Your task to perform on an android device: turn off notifications in google photos Image 0: 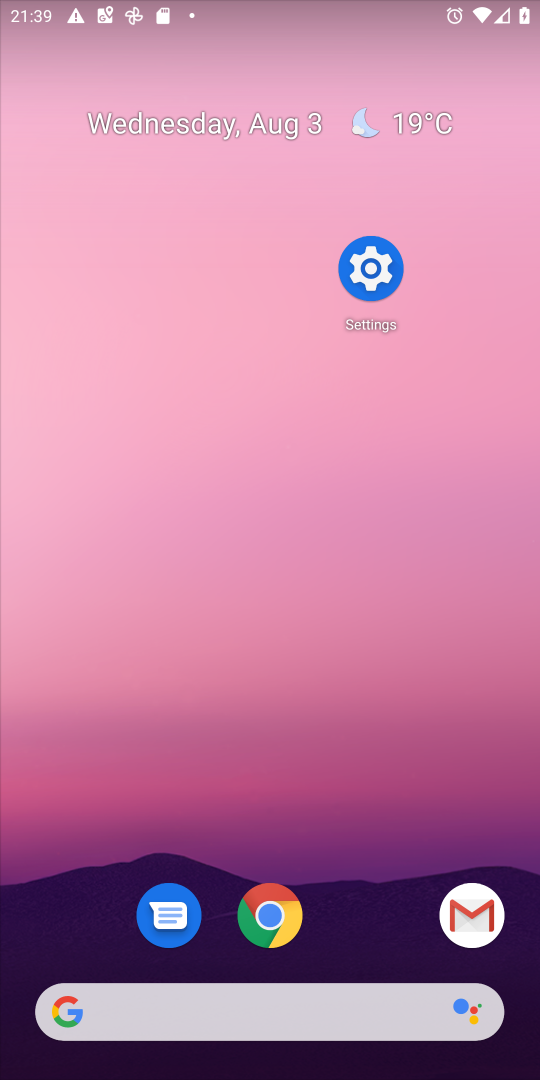
Step 0: press home button
Your task to perform on an android device: turn off notifications in google photos Image 1: 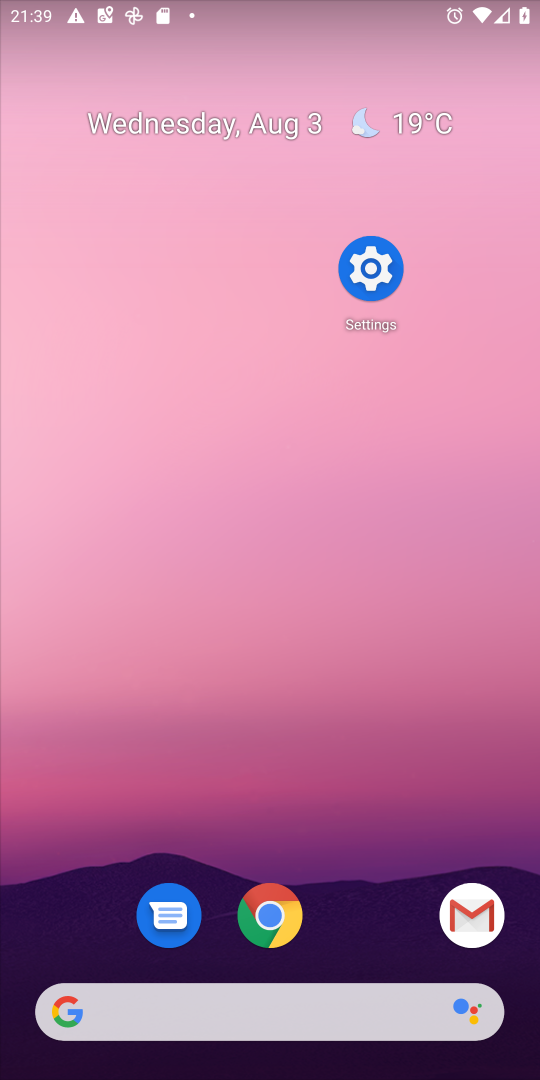
Step 1: drag from (327, 1029) to (202, 164)
Your task to perform on an android device: turn off notifications in google photos Image 2: 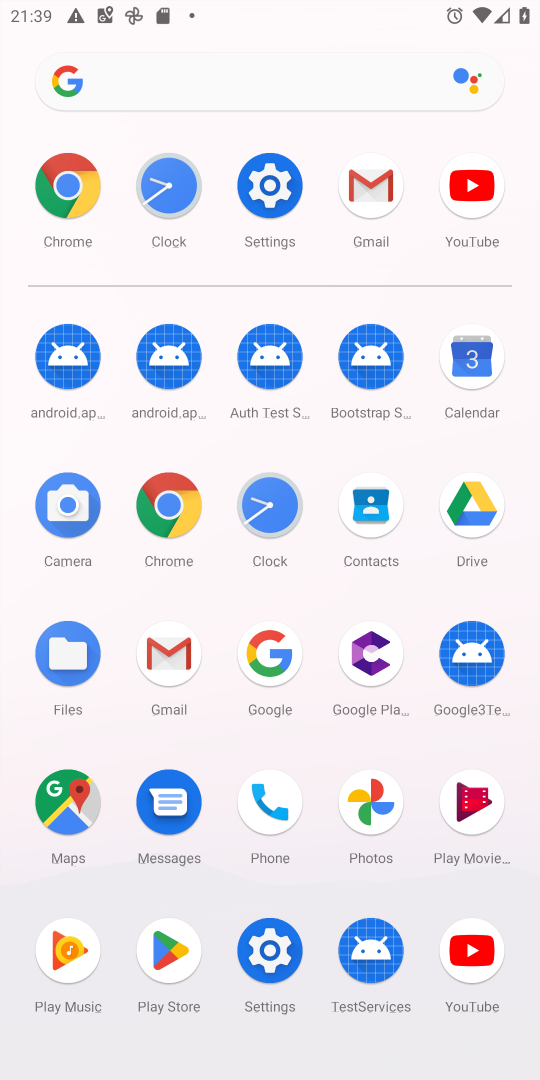
Step 2: click (372, 821)
Your task to perform on an android device: turn off notifications in google photos Image 3: 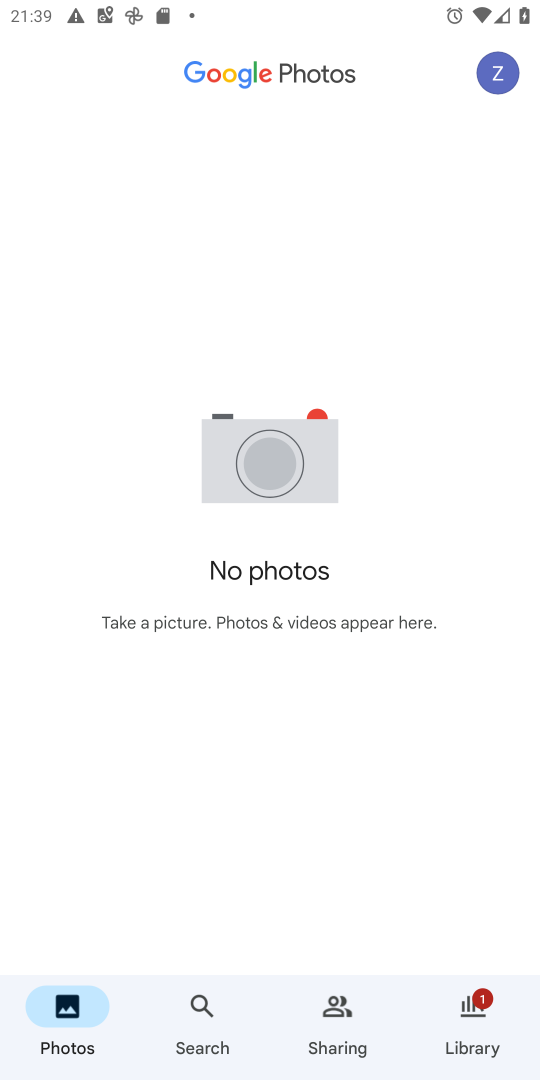
Step 3: click (199, 1003)
Your task to perform on an android device: turn off notifications in google photos Image 4: 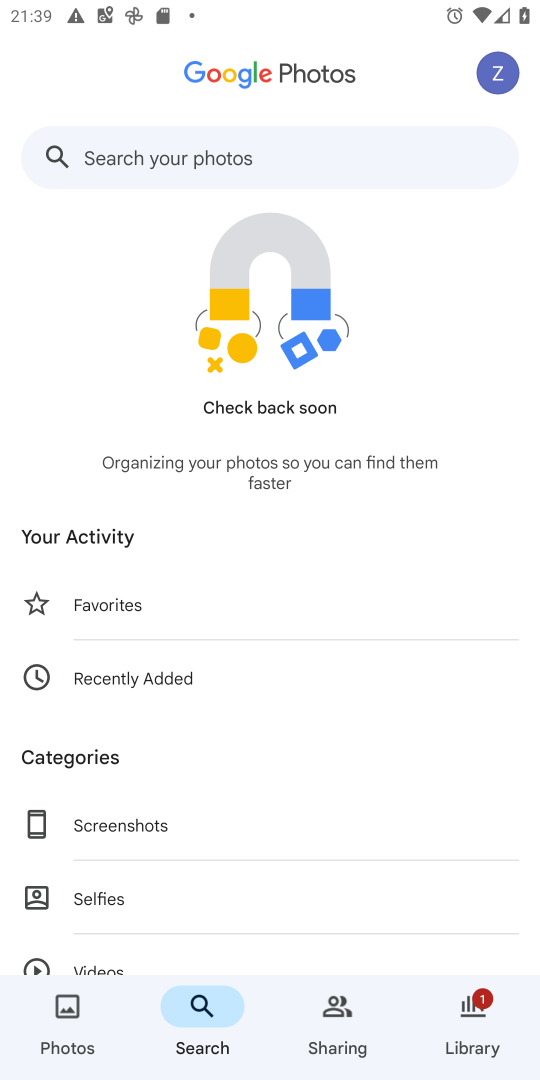
Step 4: click (203, 150)
Your task to perform on an android device: turn off notifications in google photos Image 5: 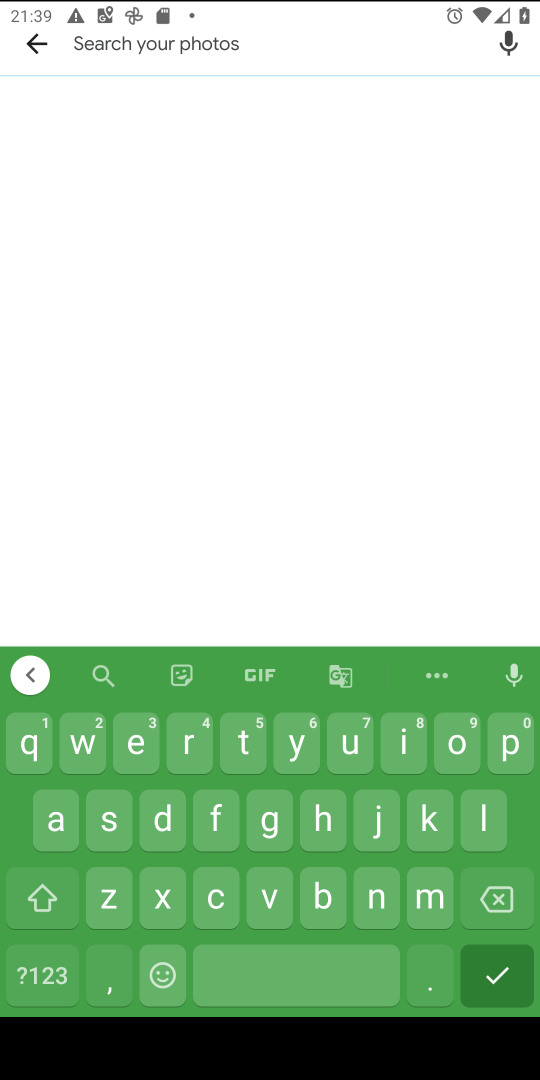
Step 5: click (380, 910)
Your task to perform on an android device: turn off notifications in google photos Image 6: 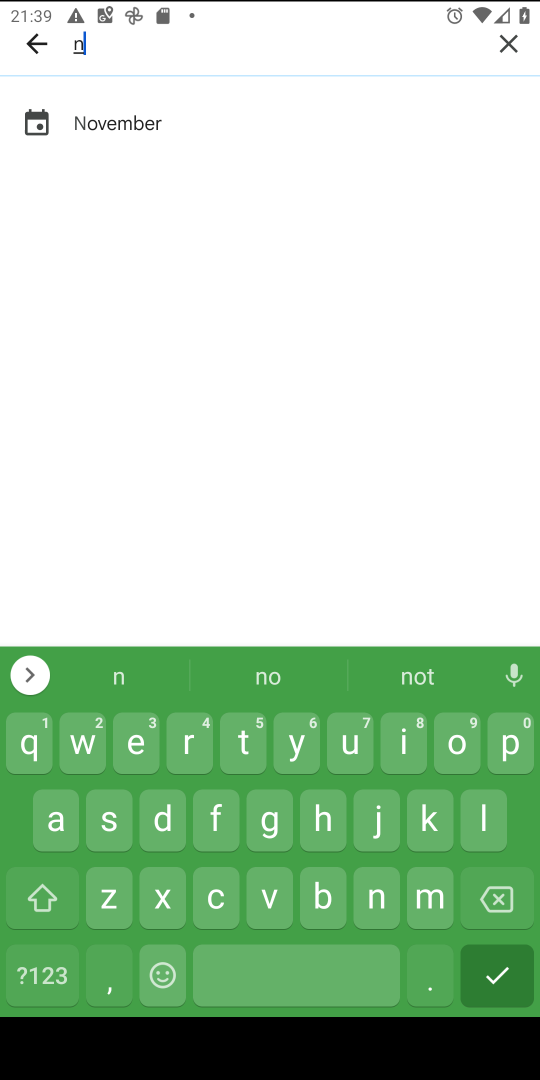
Step 6: click (452, 741)
Your task to perform on an android device: turn off notifications in google photos Image 7: 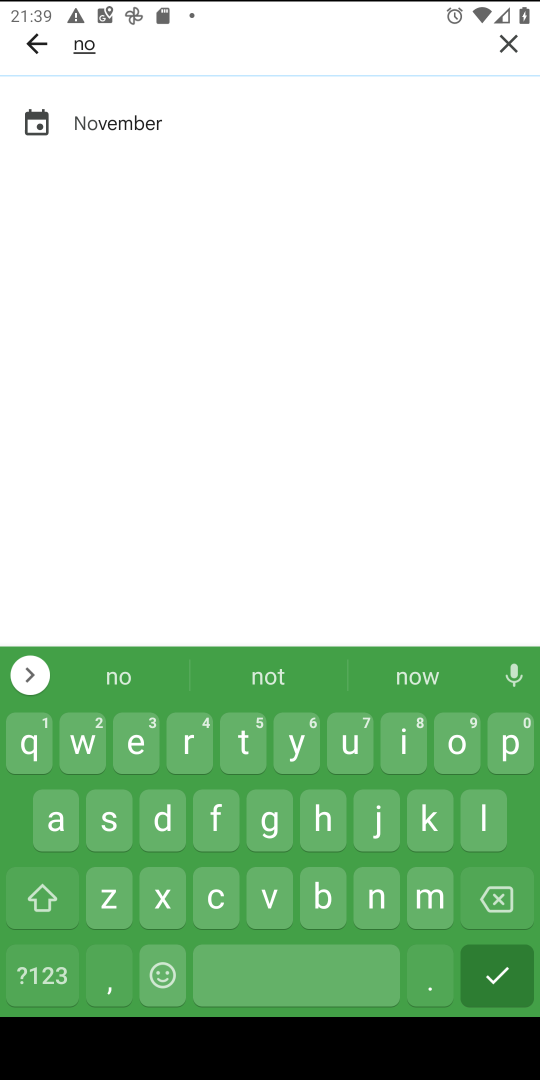
Step 7: click (40, 50)
Your task to perform on an android device: turn off notifications in google photos Image 8: 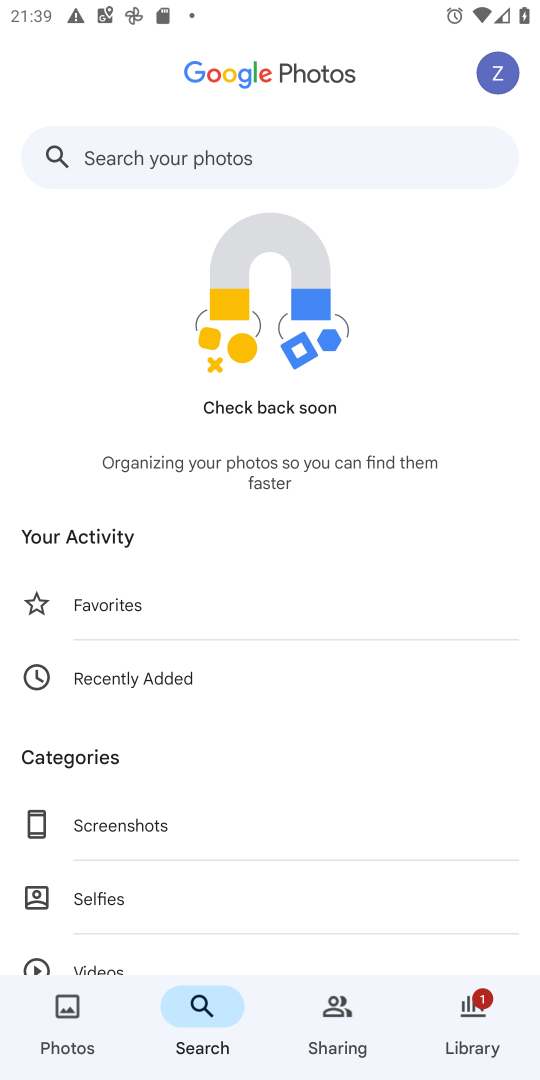
Step 8: click (507, 67)
Your task to perform on an android device: turn off notifications in google photos Image 9: 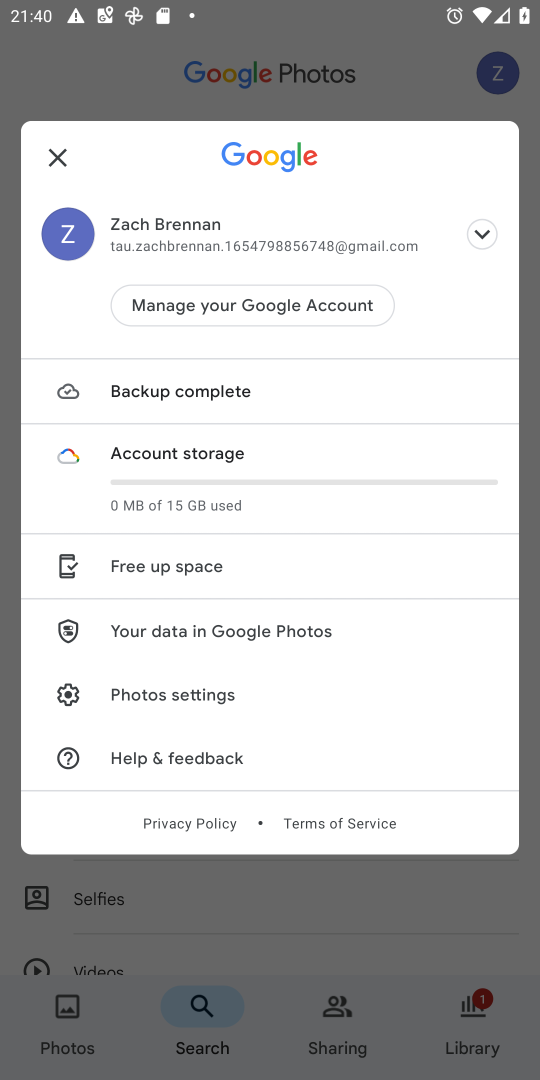
Step 9: click (188, 685)
Your task to perform on an android device: turn off notifications in google photos Image 10: 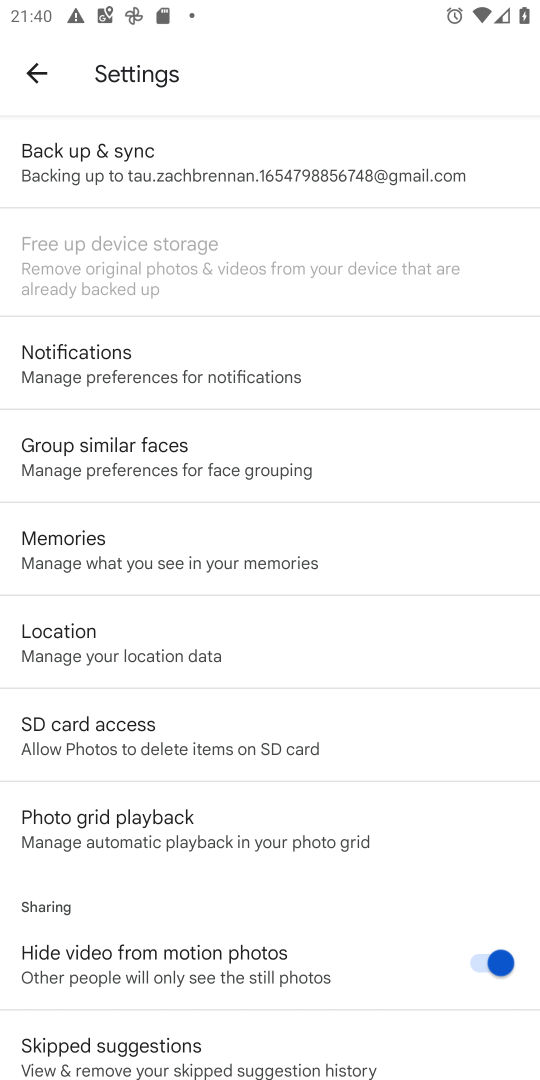
Step 10: click (148, 356)
Your task to perform on an android device: turn off notifications in google photos Image 11: 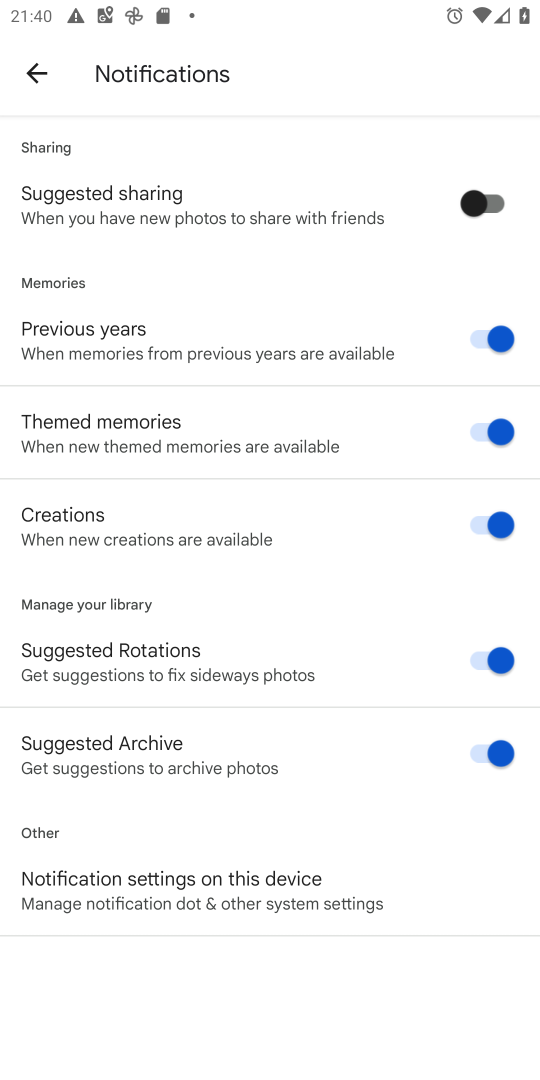
Step 11: click (158, 879)
Your task to perform on an android device: turn off notifications in google photos Image 12: 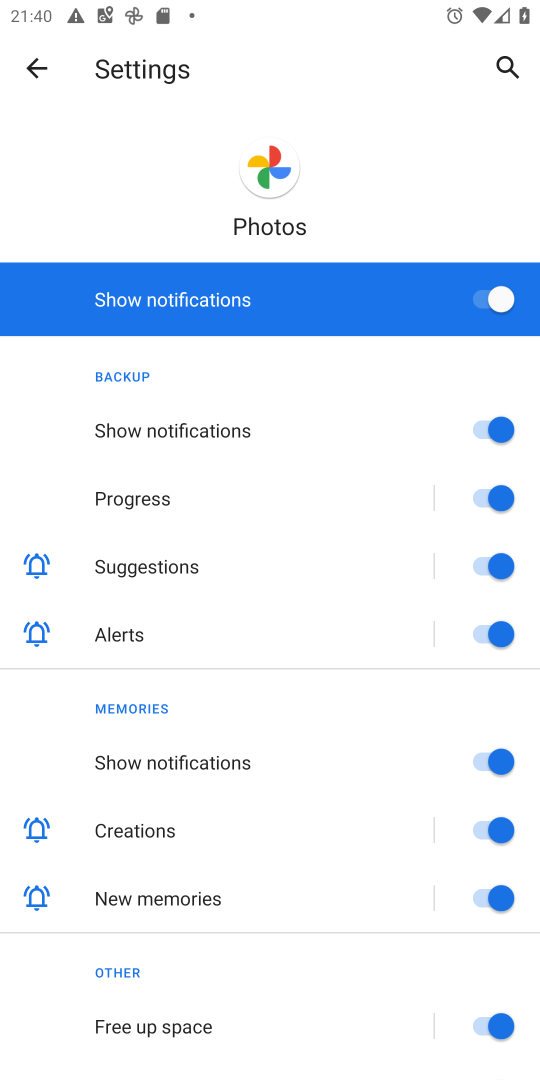
Step 12: click (482, 298)
Your task to perform on an android device: turn off notifications in google photos Image 13: 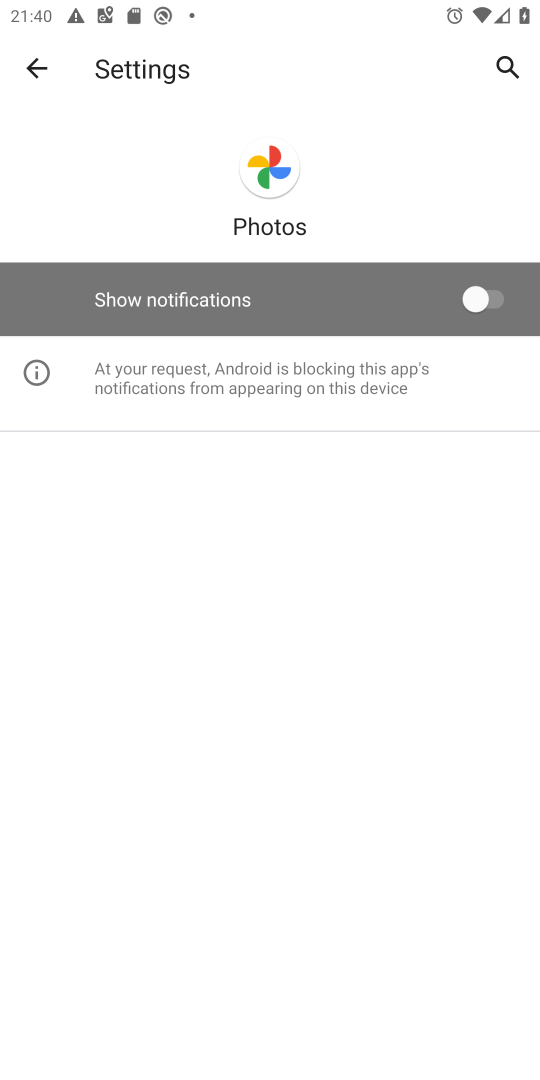
Step 13: task complete